Your task to perform on an android device: Search for vegetarian restaurants on Maps Image 0: 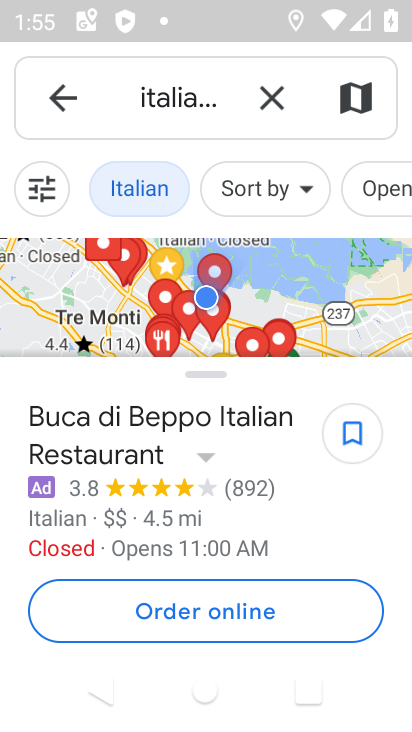
Step 0: click (272, 104)
Your task to perform on an android device: Search for vegetarian restaurants on Maps Image 1: 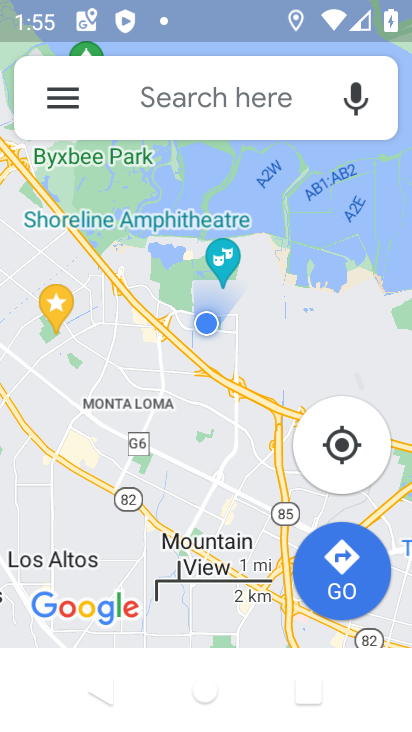
Step 1: click (211, 106)
Your task to perform on an android device: Search for vegetarian restaurants on Maps Image 2: 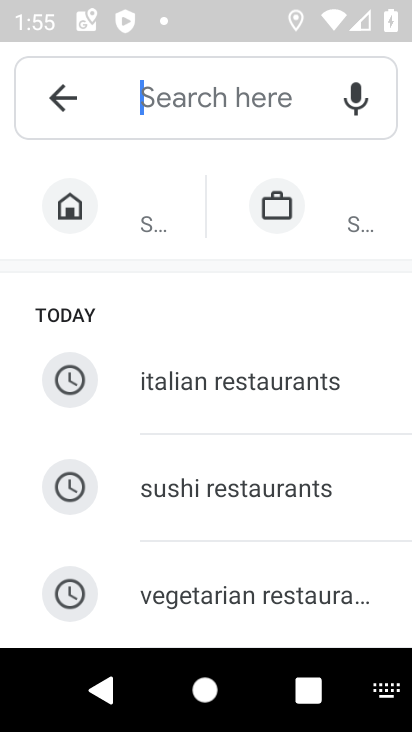
Step 2: click (240, 588)
Your task to perform on an android device: Search for vegetarian restaurants on Maps Image 3: 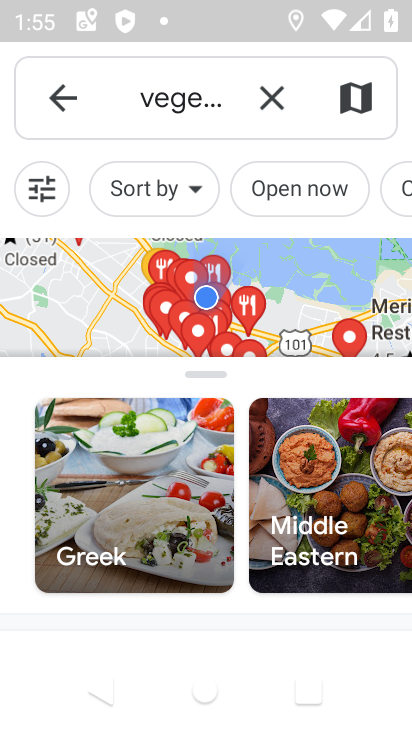
Step 3: task complete